Your task to perform on an android device: Search for Italian restaurants on Maps Image 0: 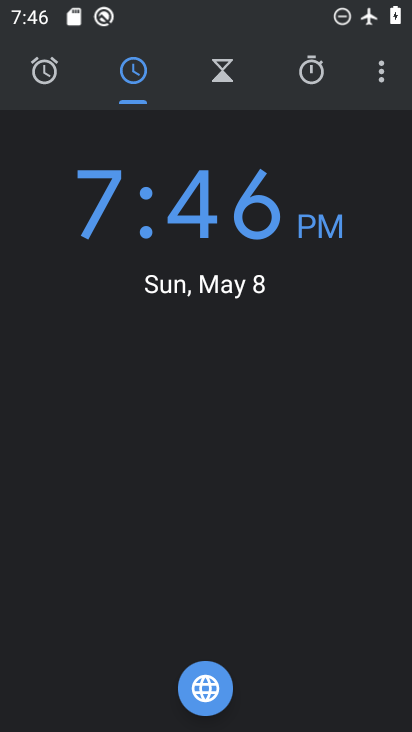
Step 0: press home button
Your task to perform on an android device: Search for Italian restaurants on Maps Image 1: 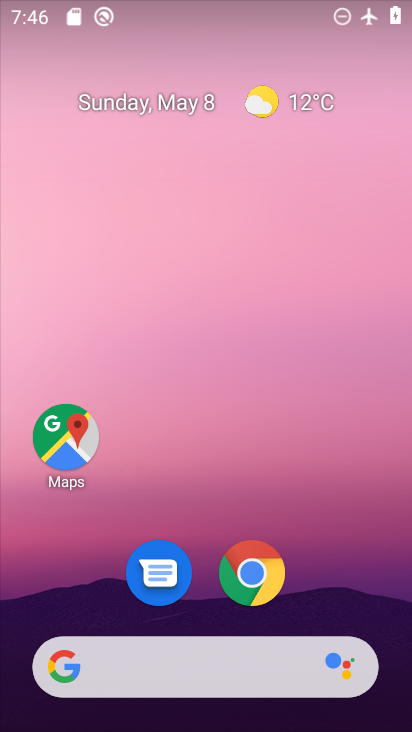
Step 1: click (62, 445)
Your task to perform on an android device: Search for Italian restaurants on Maps Image 2: 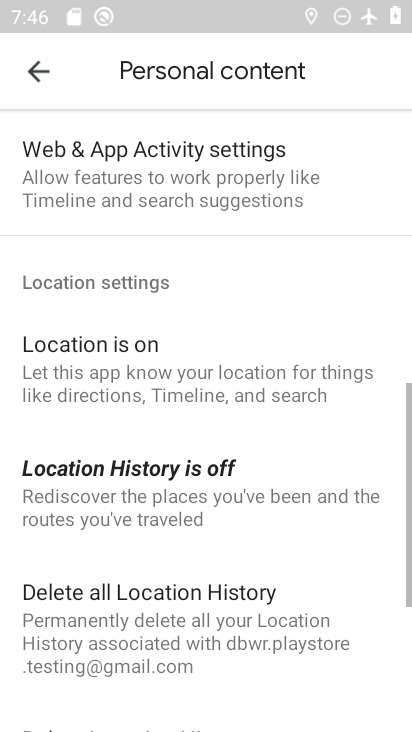
Step 2: click (31, 74)
Your task to perform on an android device: Search for Italian restaurants on Maps Image 3: 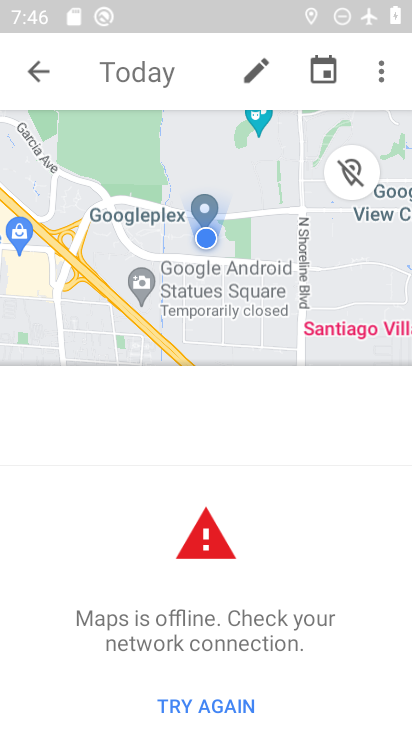
Step 3: click (31, 74)
Your task to perform on an android device: Search for Italian restaurants on Maps Image 4: 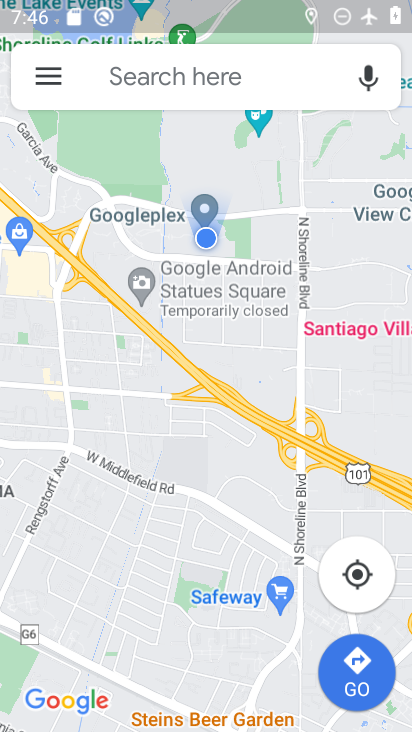
Step 4: click (114, 76)
Your task to perform on an android device: Search for Italian restaurants on Maps Image 5: 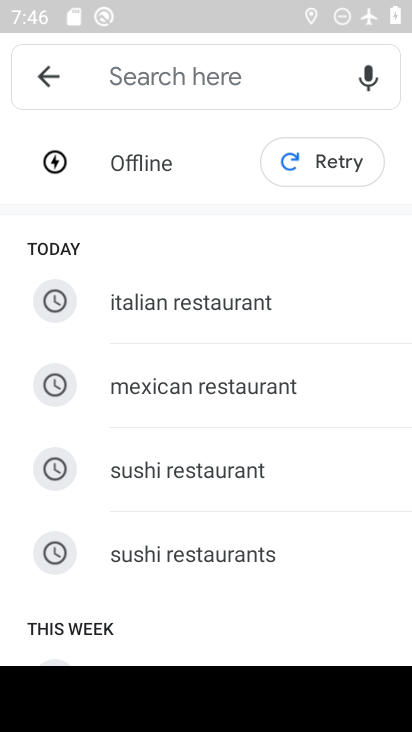
Step 5: click (213, 304)
Your task to perform on an android device: Search for Italian restaurants on Maps Image 6: 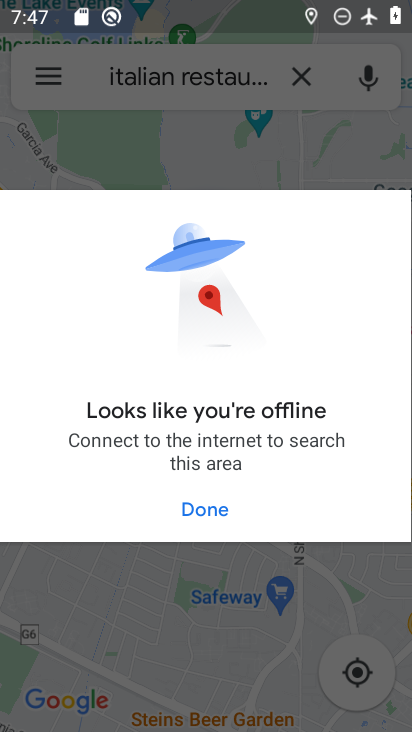
Step 6: task complete